Your task to perform on an android device: install app "Chime – Mobile Banking" Image 0: 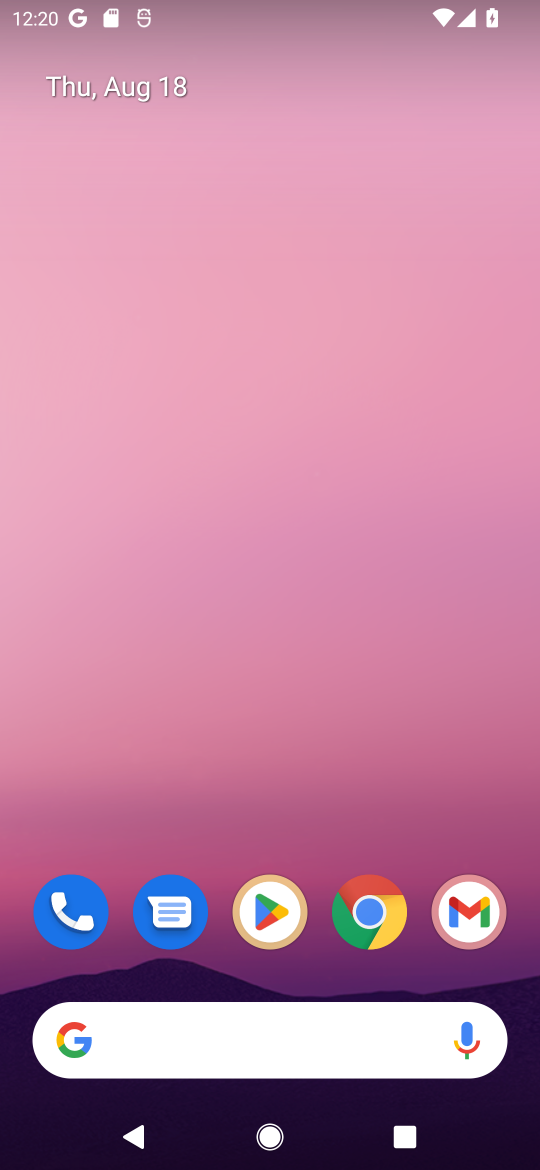
Step 0: click (287, 906)
Your task to perform on an android device: install app "Chime – Mobile Banking" Image 1: 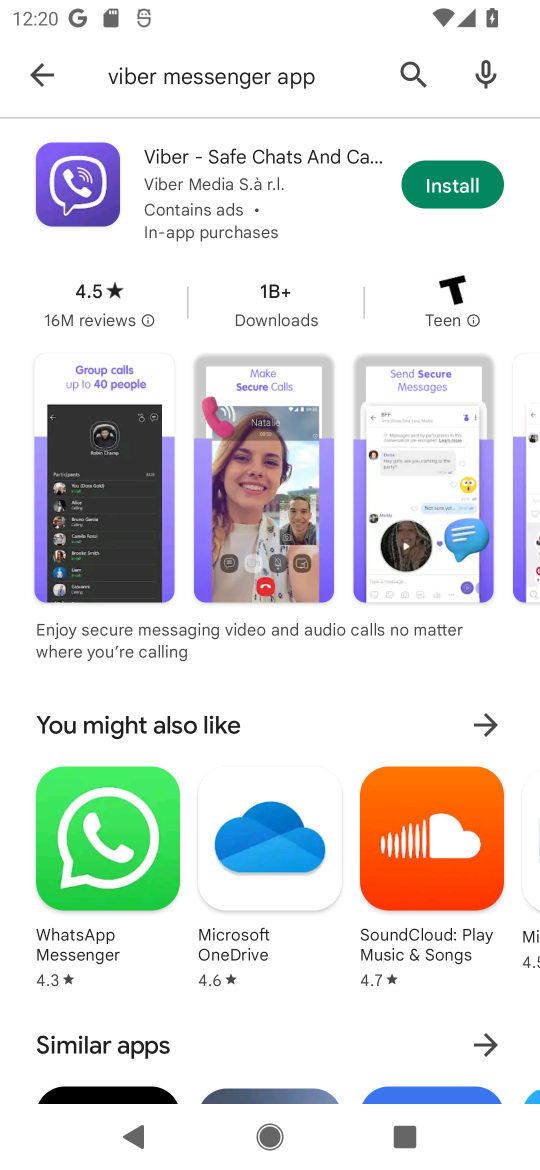
Step 1: click (416, 75)
Your task to perform on an android device: install app "Chime – Mobile Banking" Image 2: 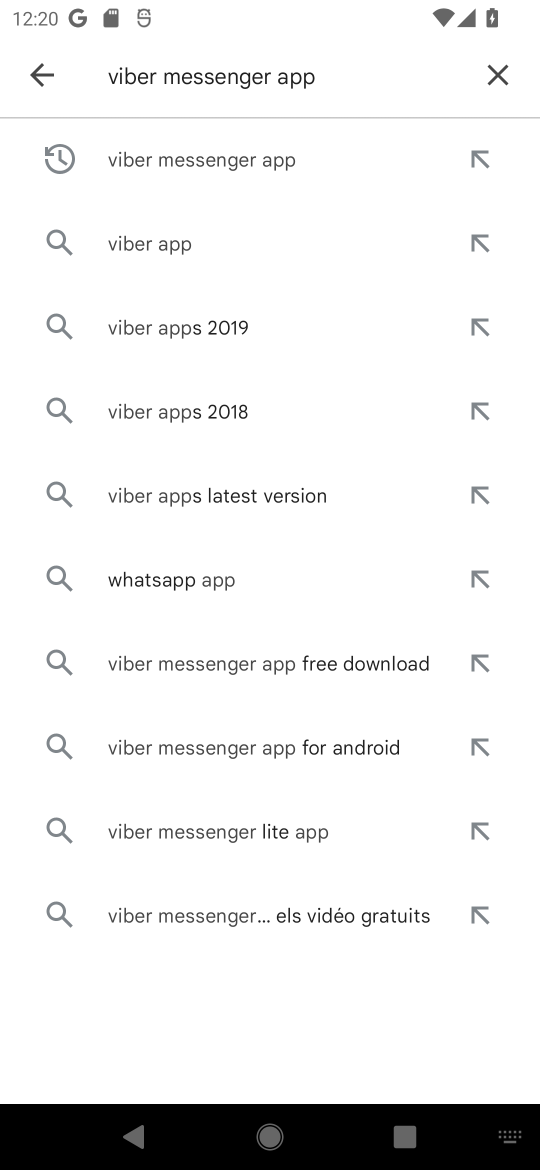
Step 2: click (503, 73)
Your task to perform on an android device: install app "Chime – Mobile Banking" Image 3: 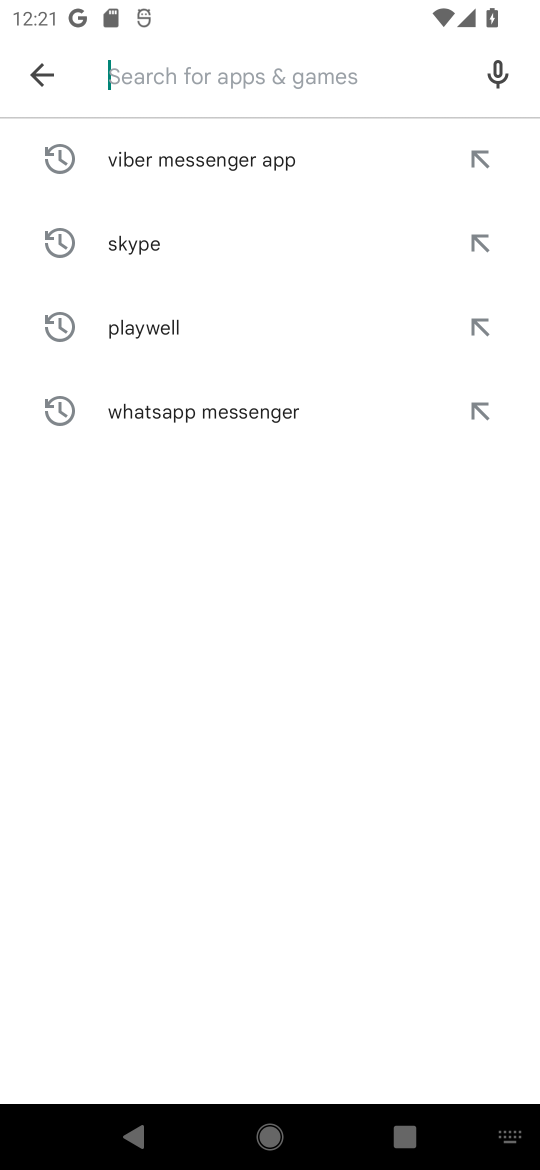
Step 3: type "chime"
Your task to perform on an android device: install app "Chime – Mobile Banking" Image 4: 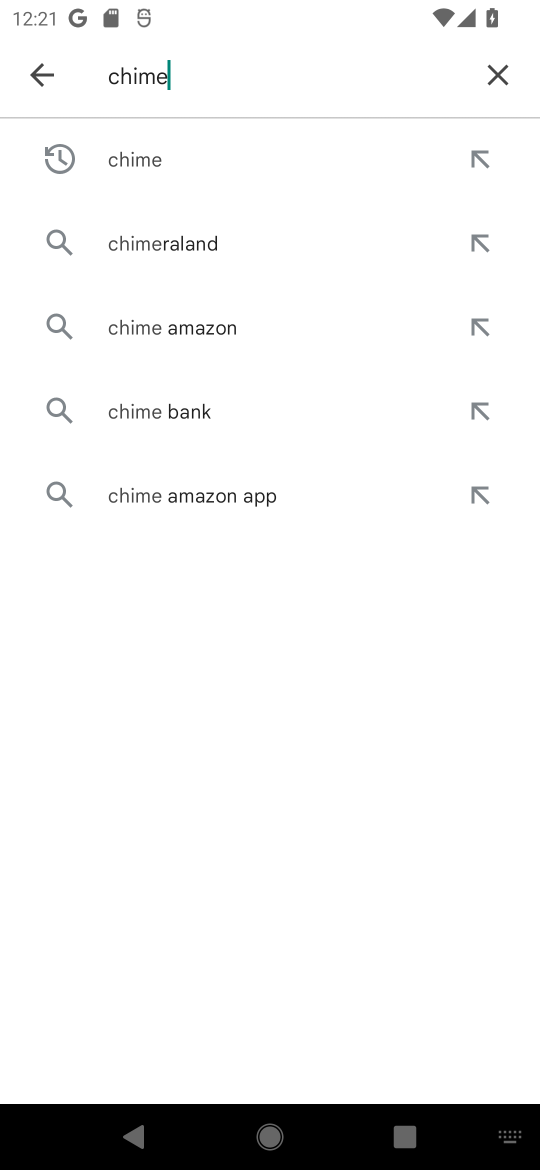
Step 4: click (234, 155)
Your task to perform on an android device: install app "Chime – Mobile Banking" Image 5: 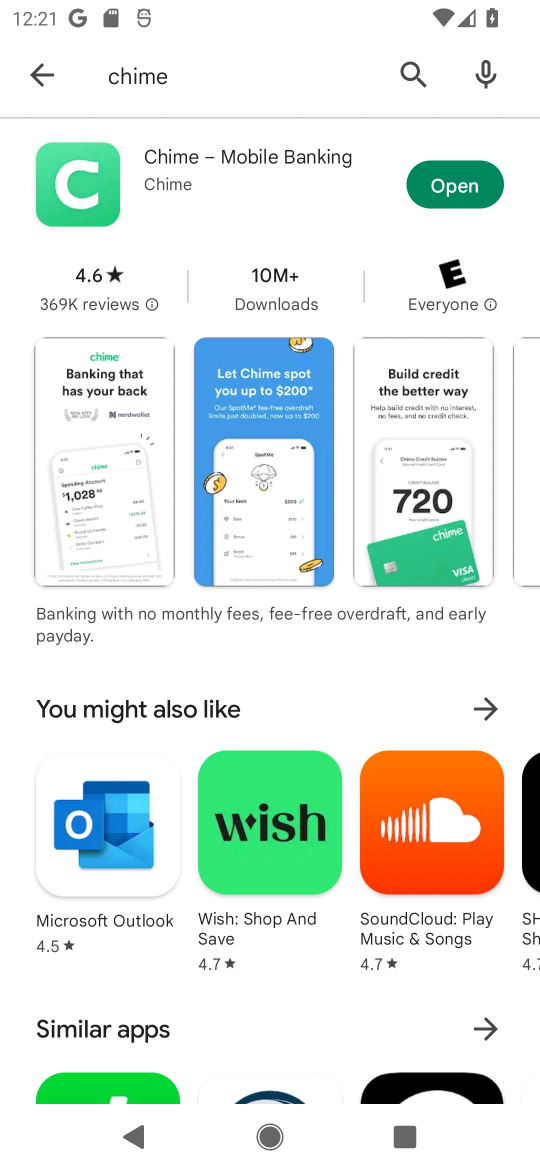
Step 5: click (459, 182)
Your task to perform on an android device: install app "Chime – Mobile Banking" Image 6: 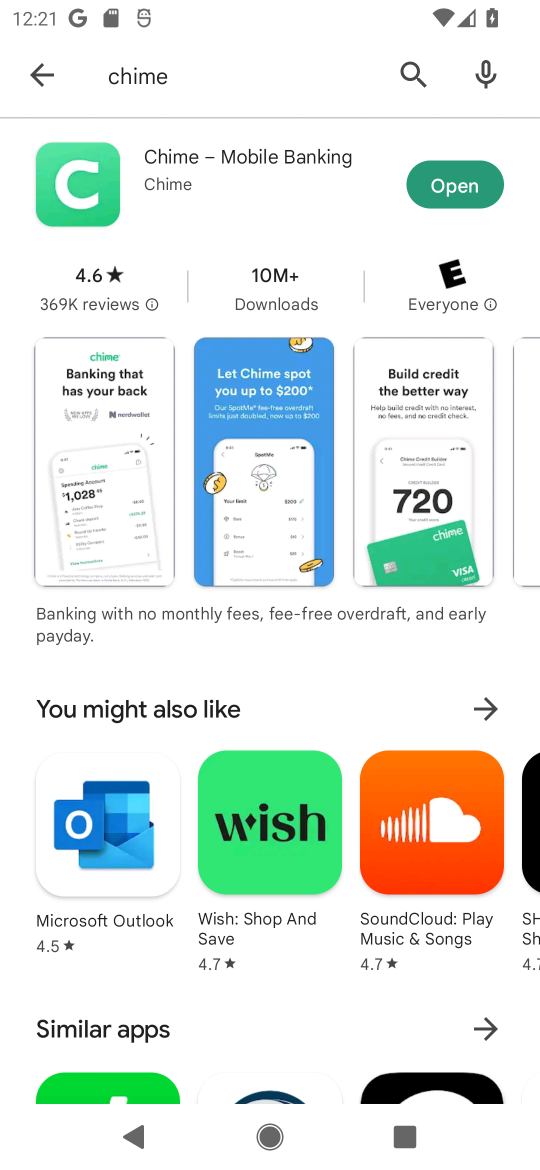
Step 6: task complete